Your task to perform on an android device: change notifications settings Image 0: 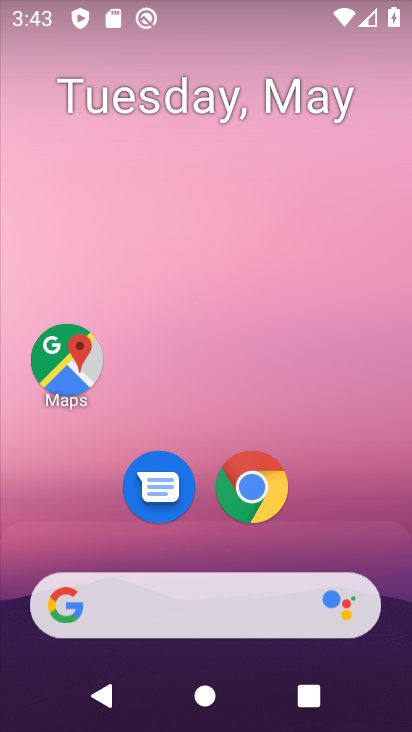
Step 0: drag from (354, 403) to (369, 95)
Your task to perform on an android device: change notifications settings Image 1: 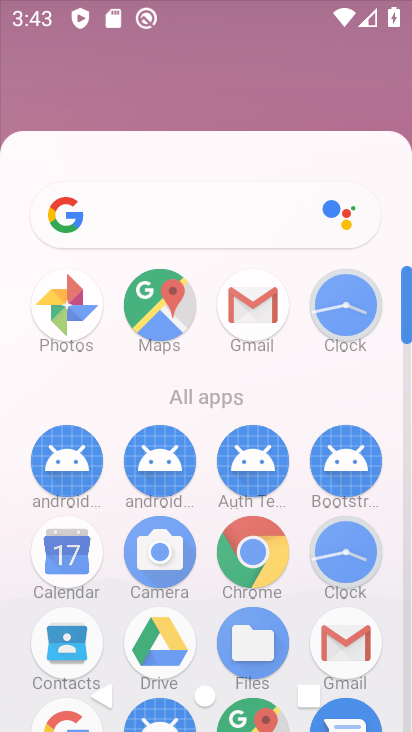
Step 1: drag from (334, 476) to (318, 38)
Your task to perform on an android device: change notifications settings Image 2: 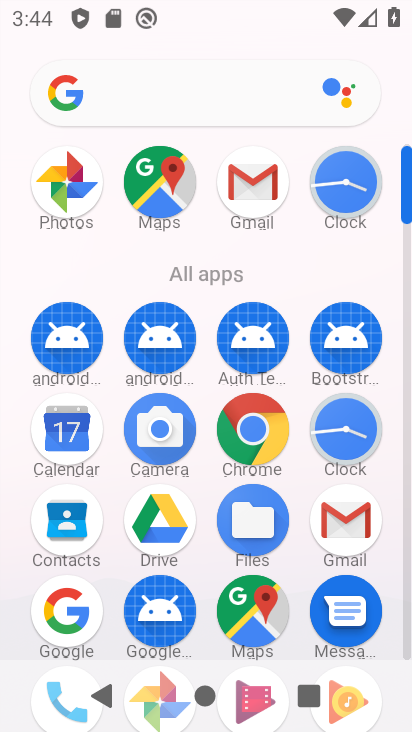
Step 2: drag from (306, 569) to (328, 114)
Your task to perform on an android device: change notifications settings Image 3: 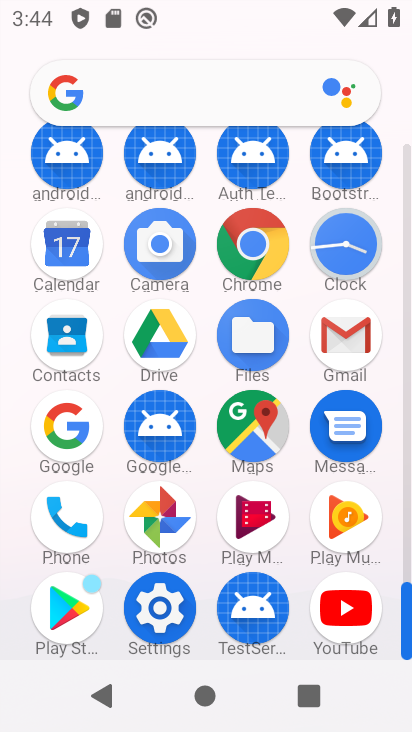
Step 3: click (150, 611)
Your task to perform on an android device: change notifications settings Image 4: 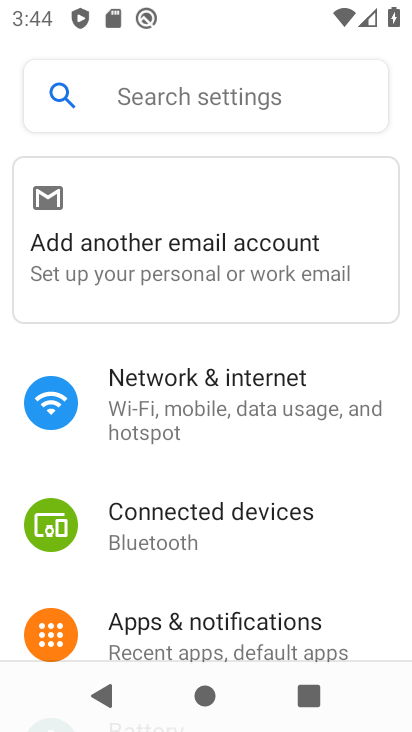
Step 4: drag from (206, 573) to (228, 256)
Your task to perform on an android device: change notifications settings Image 5: 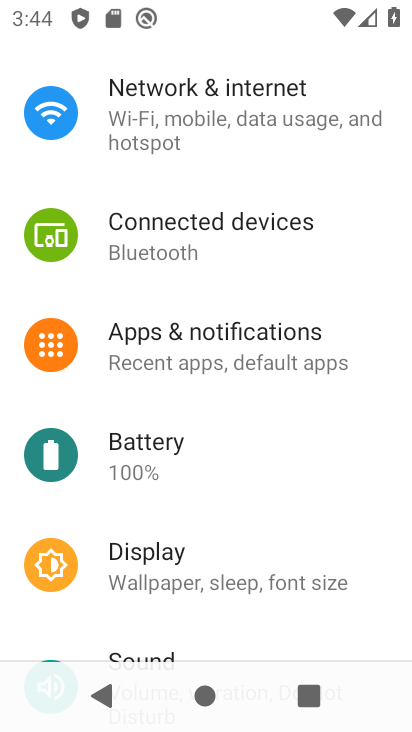
Step 5: click (222, 336)
Your task to perform on an android device: change notifications settings Image 6: 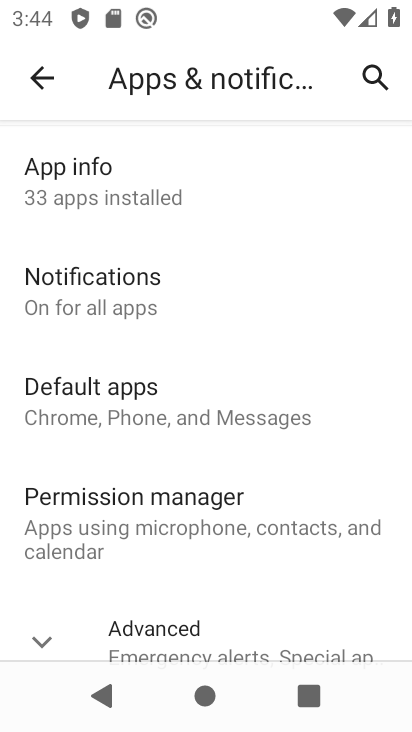
Step 6: click (95, 292)
Your task to perform on an android device: change notifications settings Image 7: 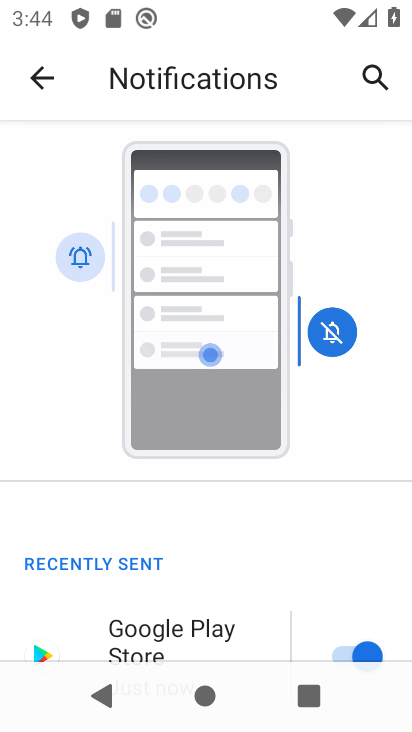
Step 7: drag from (222, 557) to (254, 95)
Your task to perform on an android device: change notifications settings Image 8: 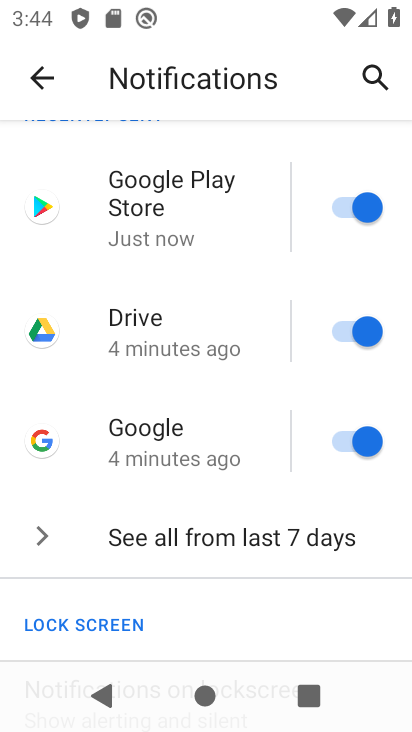
Step 8: drag from (237, 581) to (246, 147)
Your task to perform on an android device: change notifications settings Image 9: 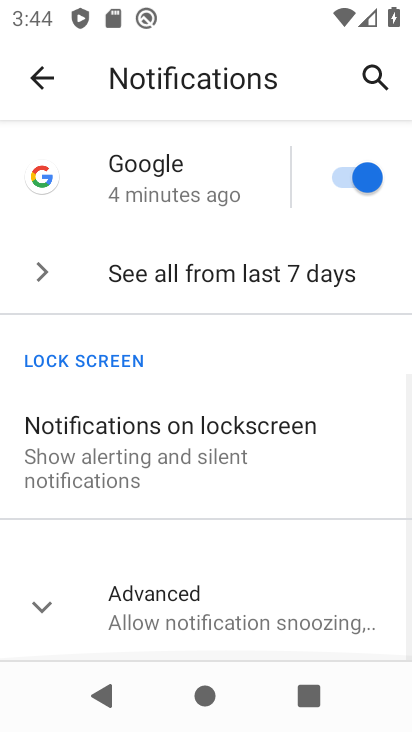
Step 9: drag from (209, 465) to (275, 196)
Your task to perform on an android device: change notifications settings Image 10: 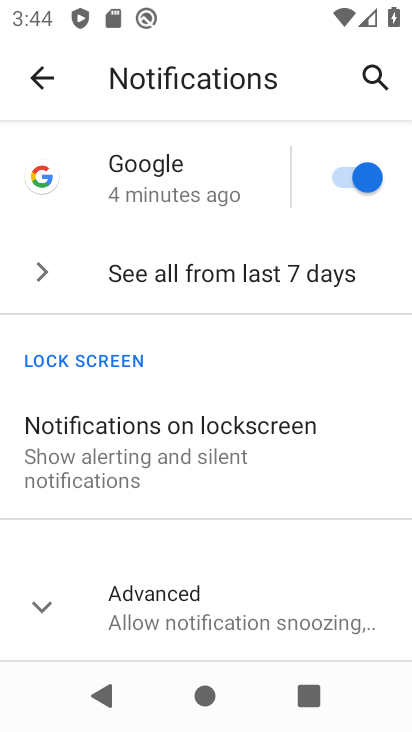
Step 10: click (172, 593)
Your task to perform on an android device: change notifications settings Image 11: 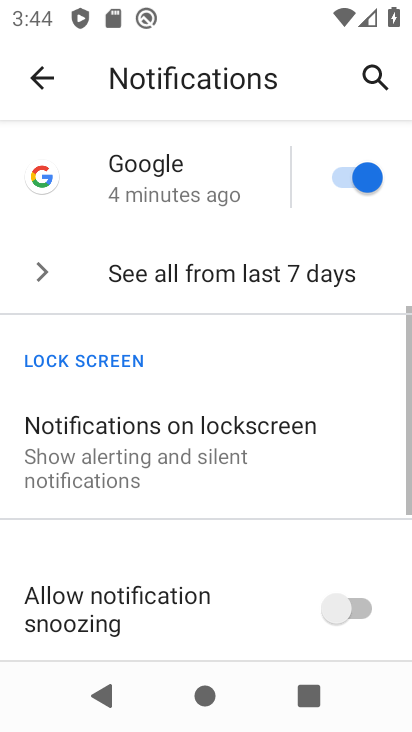
Step 11: drag from (246, 566) to (284, 205)
Your task to perform on an android device: change notifications settings Image 12: 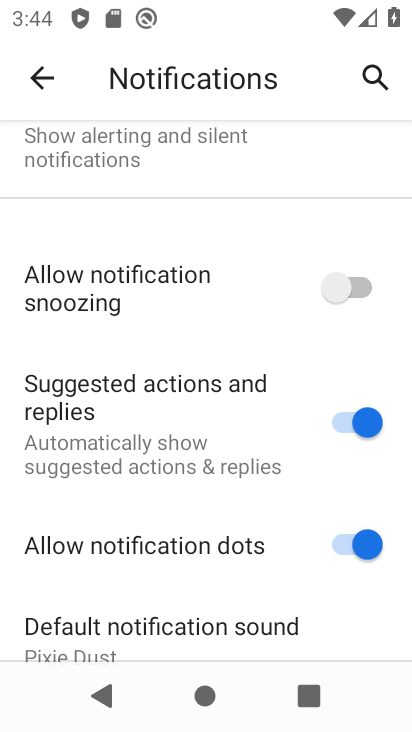
Step 12: click (348, 273)
Your task to perform on an android device: change notifications settings Image 13: 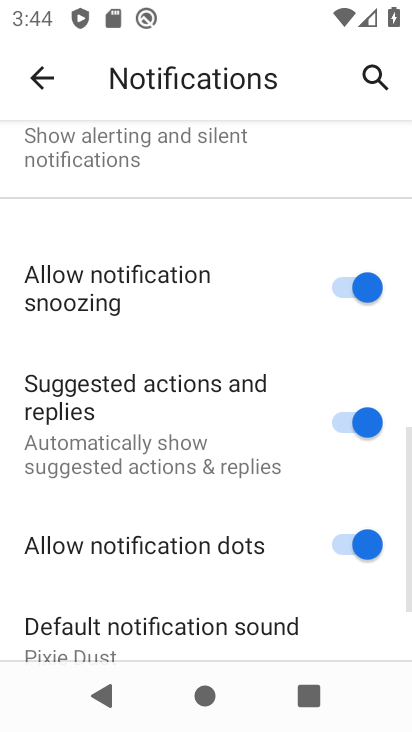
Step 13: task complete